Your task to perform on an android device: turn pop-ups off in chrome Image 0: 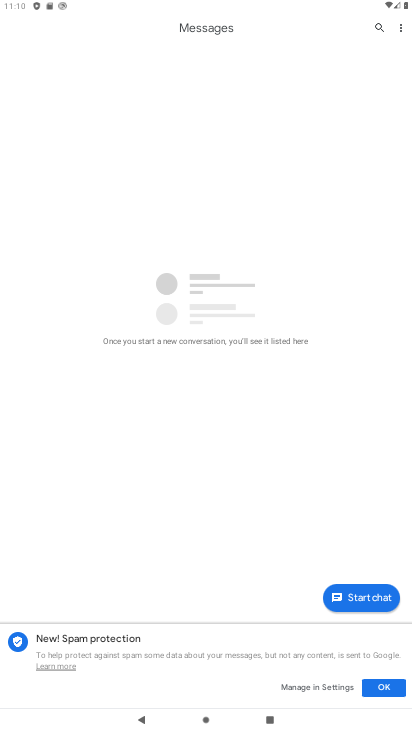
Step 0: press home button
Your task to perform on an android device: turn pop-ups off in chrome Image 1: 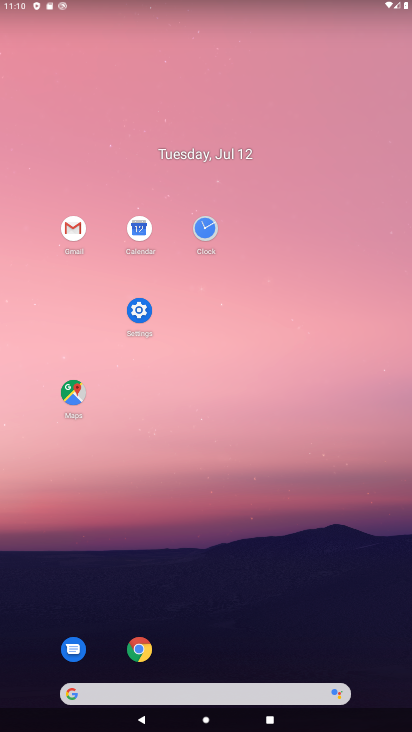
Step 1: click (133, 652)
Your task to perform on an android device: turn pop-ups off in chrome Image 2: 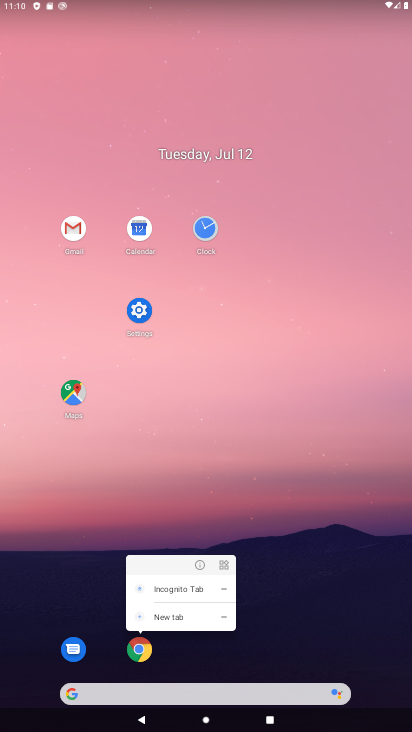
Step 2: click (132, 651)
Your task to perform on an android device: turn pop-ups off in chrome Image 3: 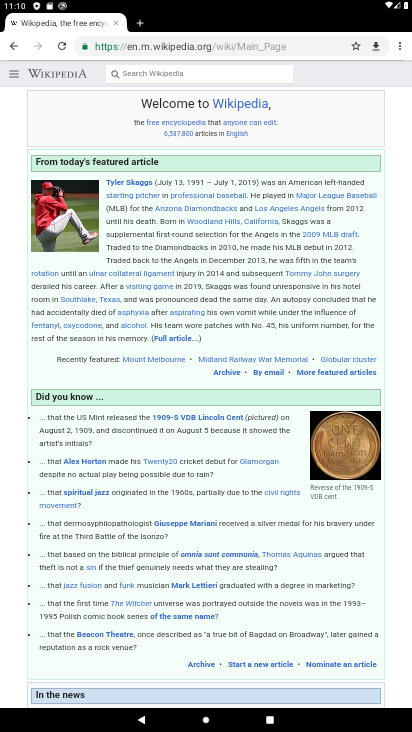
Step 3: click (397, 43)
Your task to perform on an android device: turn pop-ups off in chrome Image 4: 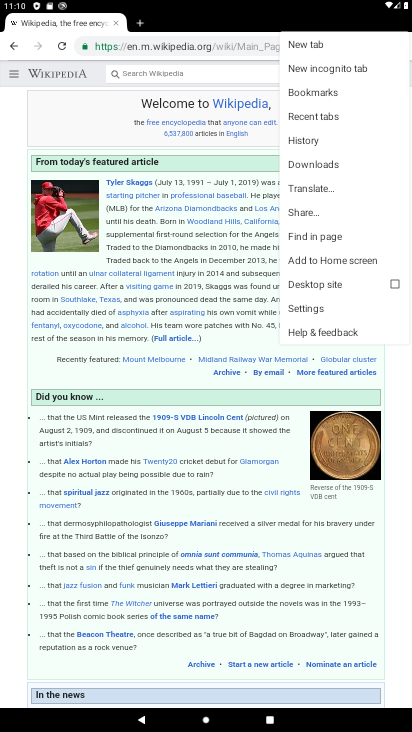
Step 4: click (314, 308)
Your task to perform on an android device: turn pop-ups off in chrome Image 5: 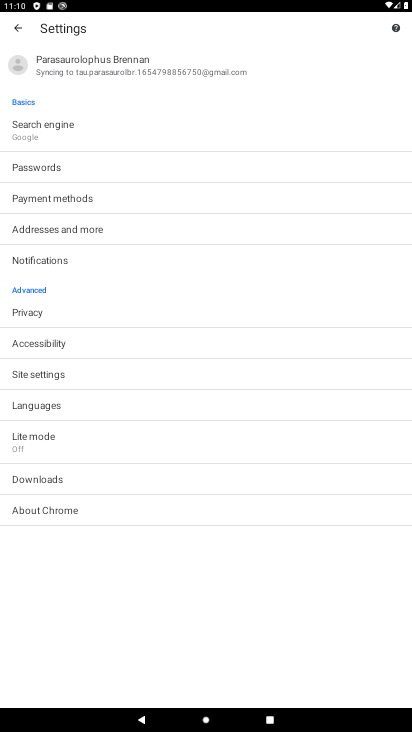
Step 5: click (76, 377)
Your task to perform on an android device: turn pop-ups off in chrome Image 6: 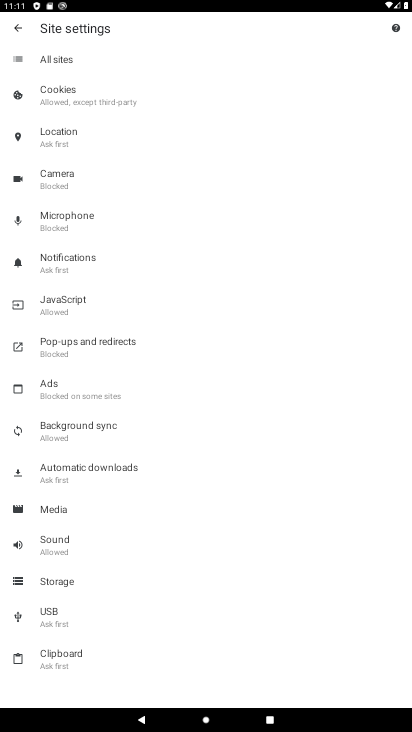
Step 6: click (79, 350)
Your task to perform on an android device: turn pop-ups off in chrome Image 7: 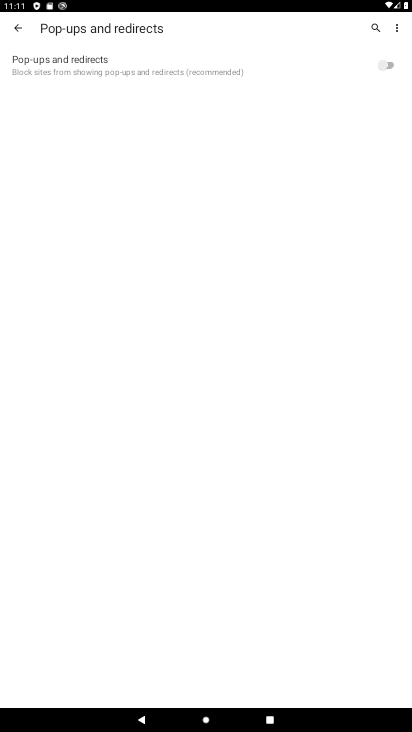
Step 7: click (380, 53)
Your task to perform on an android device: turn pop-ups off in chrome Image 8: 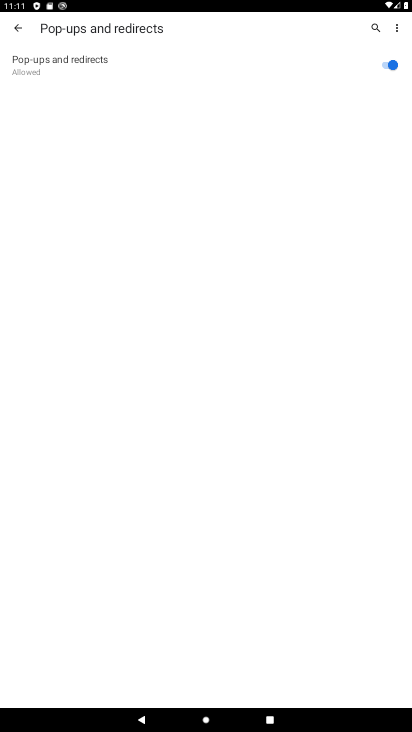
Step 8: click (380, 51)
Your task to perform on an android device: turn pop-ups off in chrome Image 9: 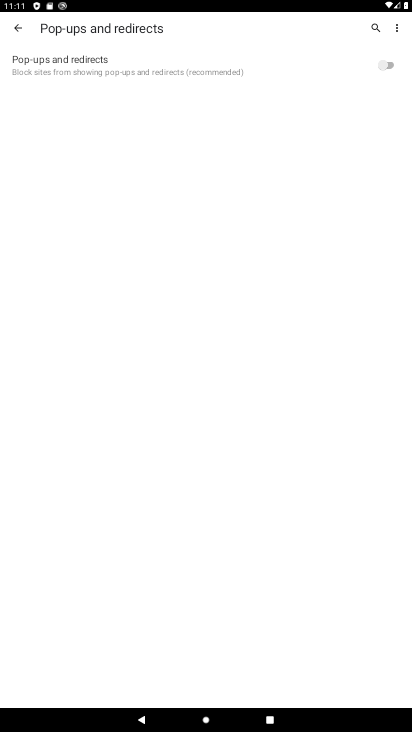
Step 9: task complete